Your task to perform on an android device: Is it going to rain this weekend? Image 0: 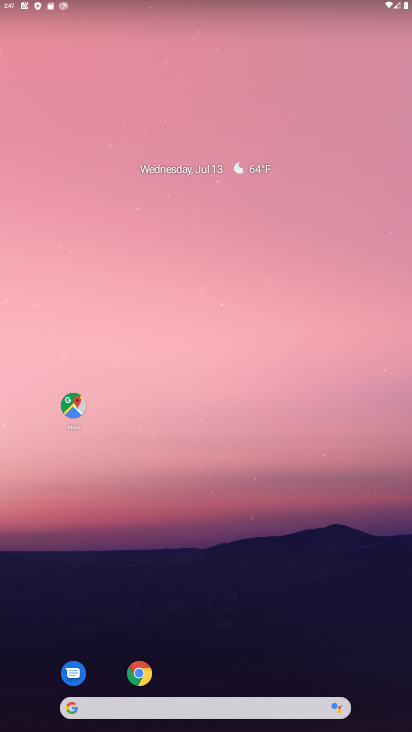
Step 0: drag from (298, 613) to (292, 144)
Your task to perform on an android device: Is it going to rain this weekend? Image 1: 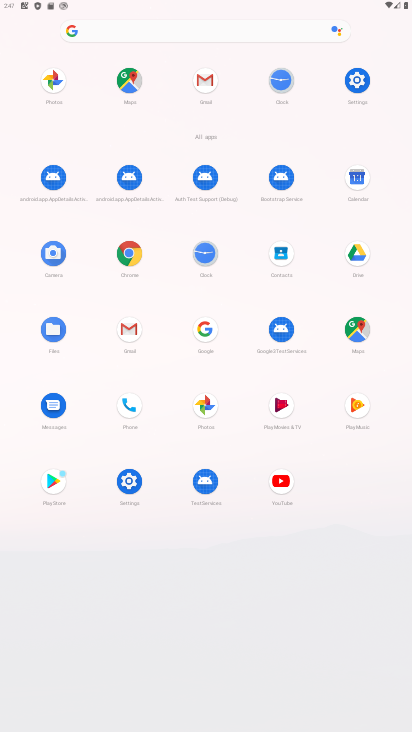
Step 1: click (126, 248)
Your task to perform on an android device: Is it going to rain this weekend? Image 2: 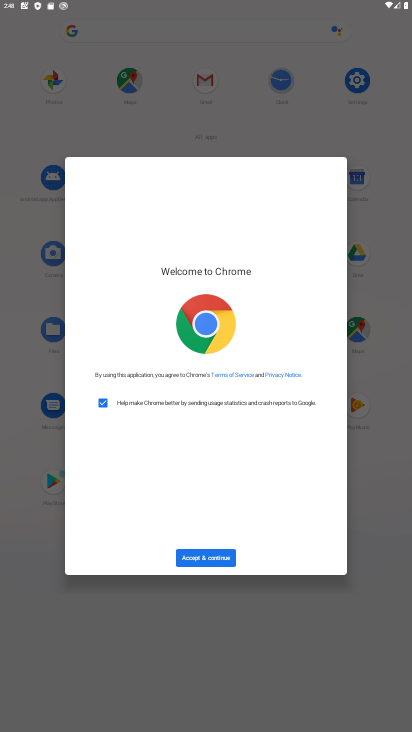
Step 2: click (197, 560)
Your task to perform on an android device: Is it going to rain this weekend? Image 3: 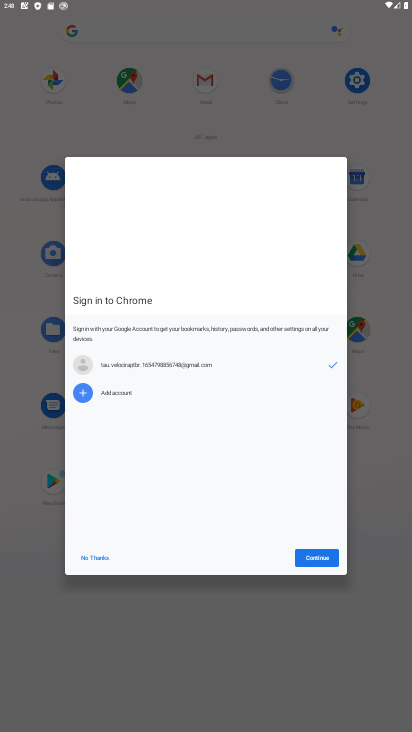
Step 3: click (307, 554)
Your task to perform on an android device: Is it going to rain this weekend? Image 4: 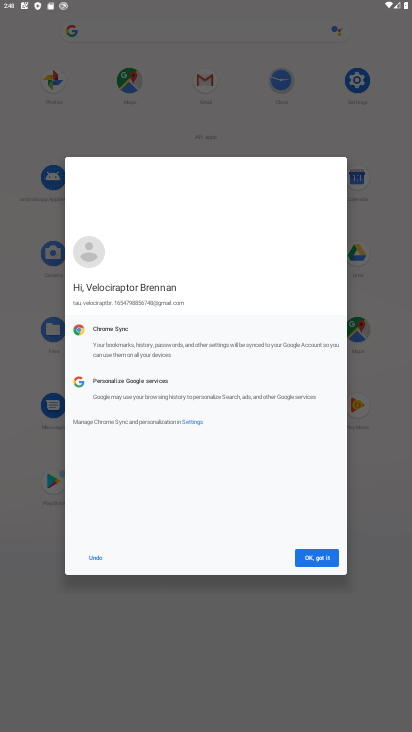
Step 4: click (317, 554)
Your task to perform on an android device: Is it going to rain this weekend? Image 5: 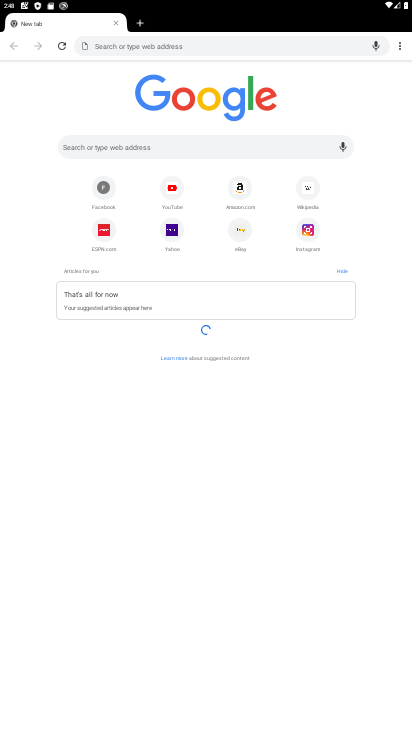
Step 5: click (278, 39)
Your task to perform on an android device: Is it going to rain this weekend? Image 6: 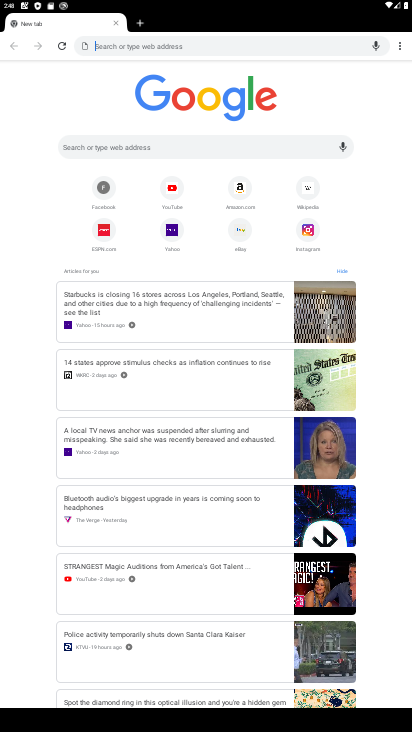
Step 6: type "Is it going to rain this weekend?"
Your task to perform on an android device: Is it going to rain this weekend? Image 7: 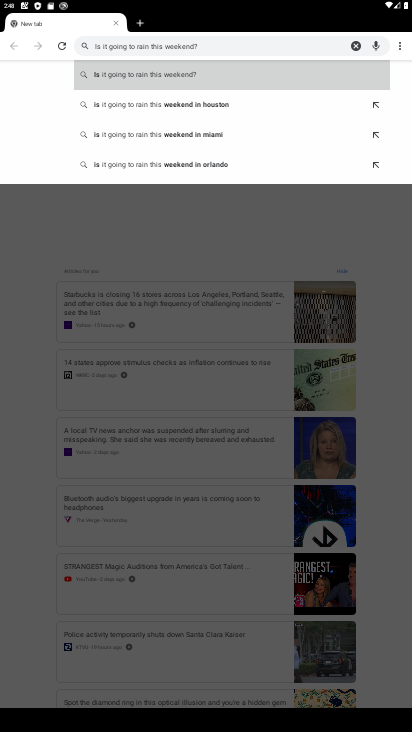
Step 7: click (136, 75)
Your task to perform on an android device: Is it going to rain this weekend? Image 8: 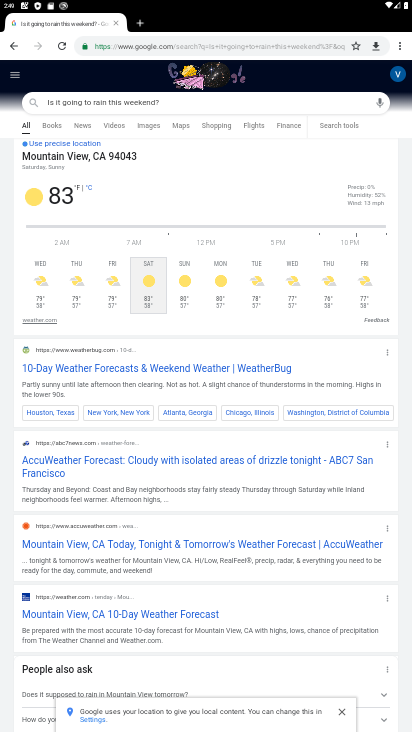
Step 8: task complete